Your task to perform on an android device: open wifi settings Image 0: 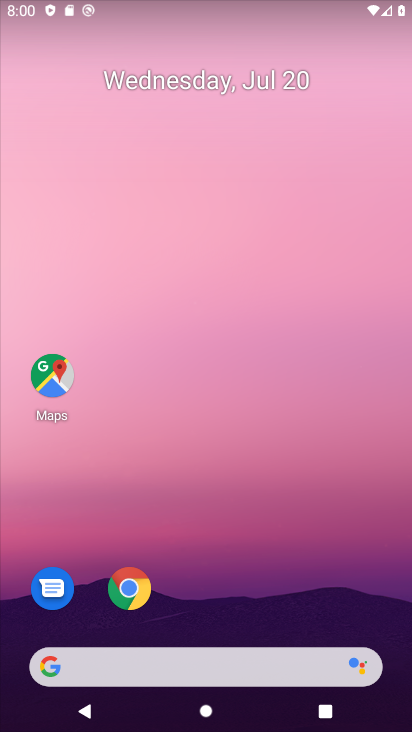
Step 0: drag from (27, 708) to (286, 12)
Your task to perform on an android device: open wifi settings Image 1: 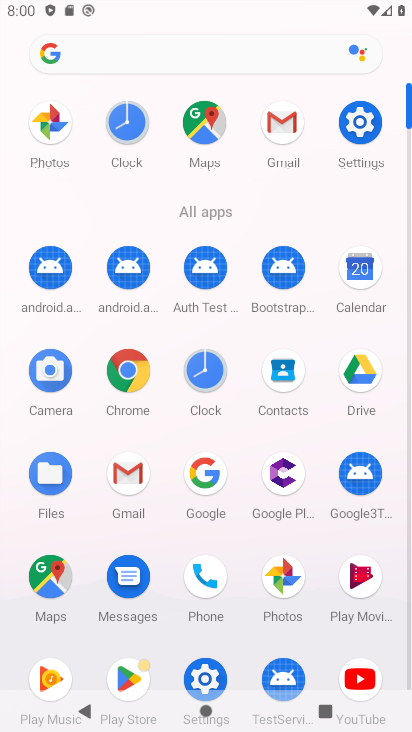
Step 1: click (210, 675)
Your task to perform on an android device: open wifi settings Image 2: 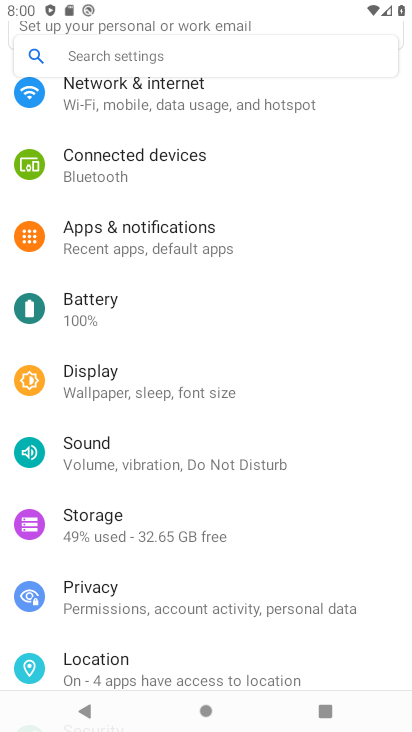
Step 2: drag from (365, 95) to (364, 357)
Your task to perform on an android device: open wifi settings Image 3: 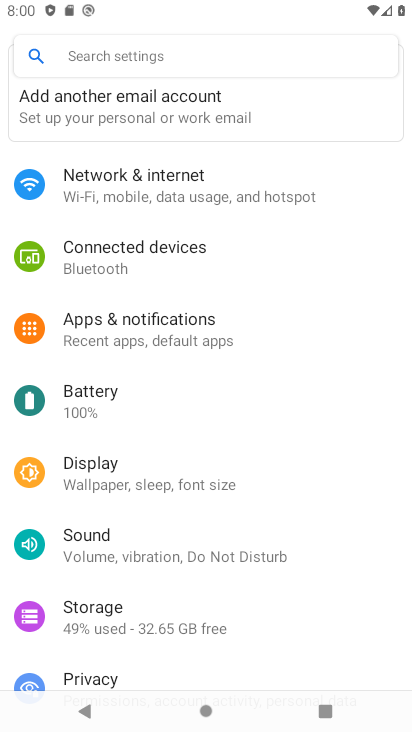
Step 3: click (200, 187)
Your task to perform on an android device: open wifi settings Image 4: 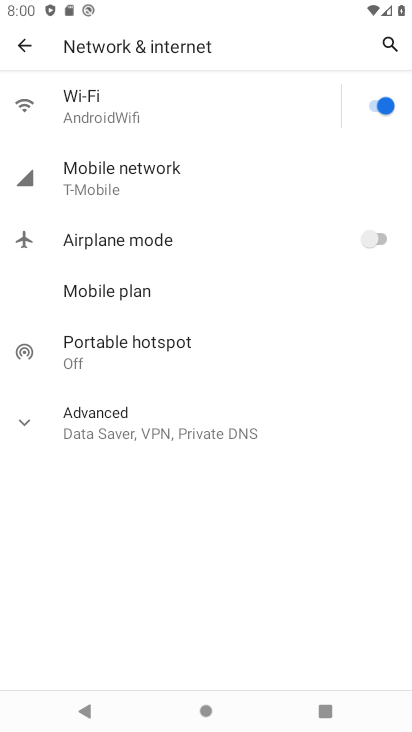
Step 4: task complete